Your task to perform on an android device: Open the Play Movies app and select the watchlist tab. Image 0: 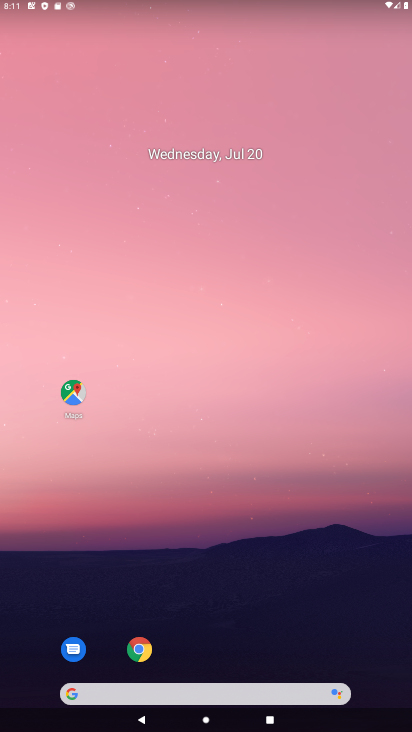
Step 0: drag from (192, 662) to (49, 79)
Your task to perform on an android device: Open the Play Movies app and select the watchlist tab. Image 1: 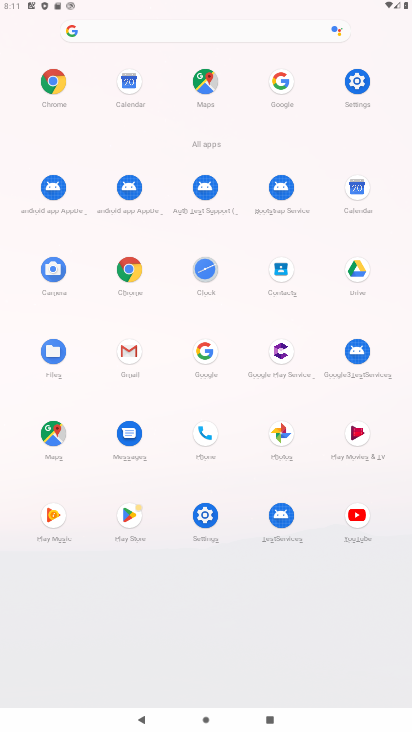
Step 1: click (356, 438)
Your task to perform on an android device: Open the Play Movies app and select the watchlist tab. Image 2: 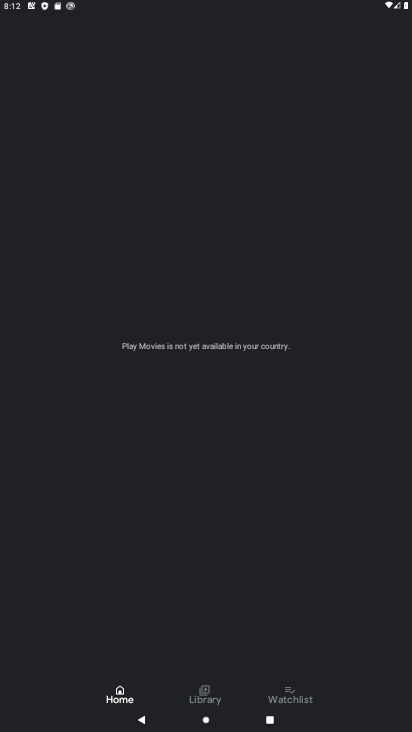
Step 2: click (288, 689)
Your task to perform on an android device: Open the Play Movies app and select the watchlist tab. Image 3: 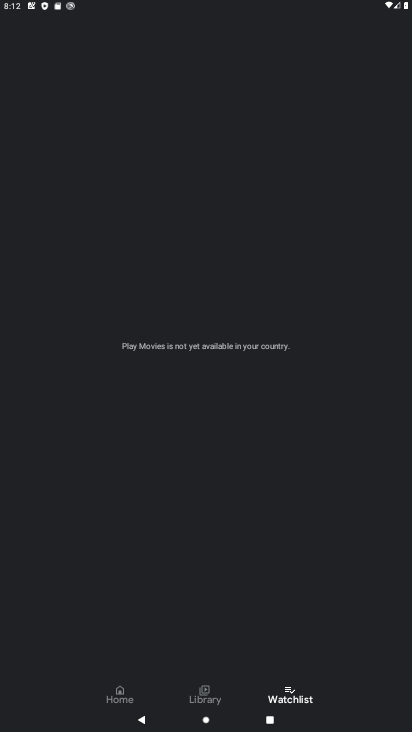
Step 3: task complete